Your task to perform on an android device: turn on the 12-hour format for clock Image 0: 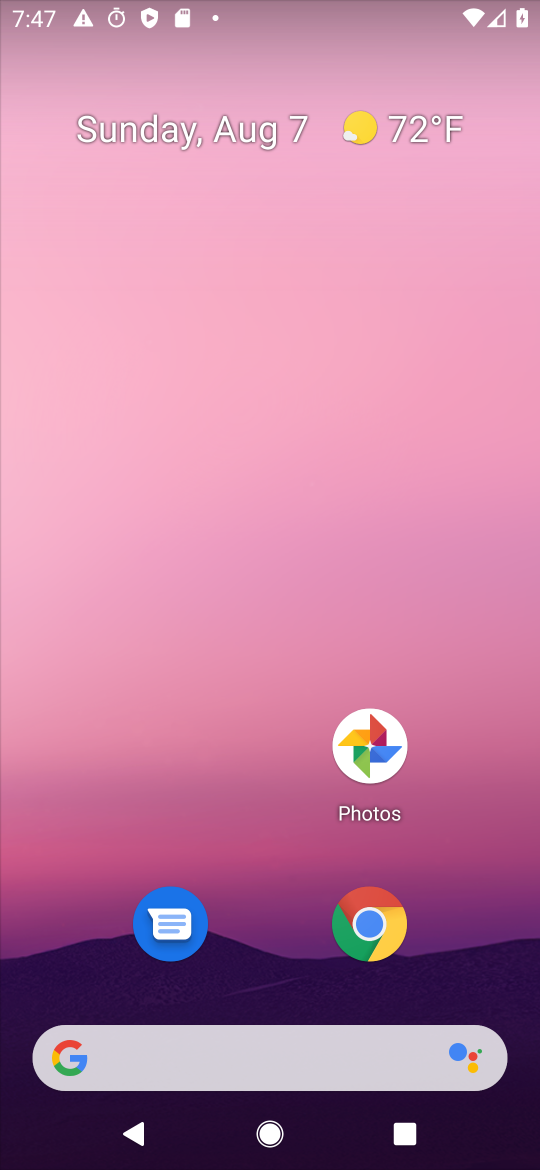
Step 0: drag from (472, 1088) to (345, 196)
Your task to perform on an android device: turn on the 12-hour format for clock Image 1: 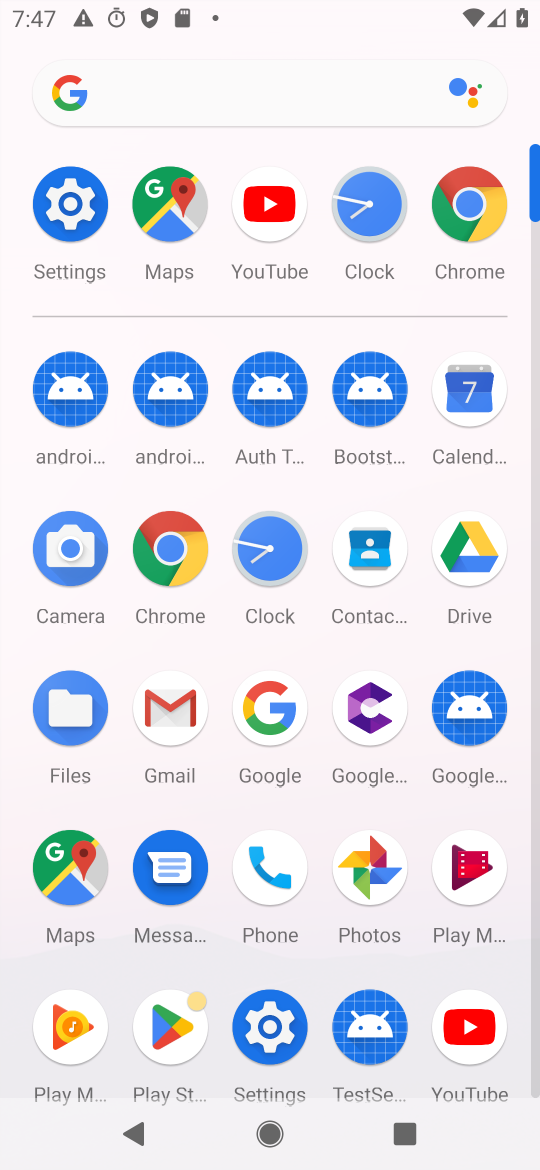
Step 1: click (375, 204)
Your task to perform on an android device: turn on the 12-hour format for clock Image 2: 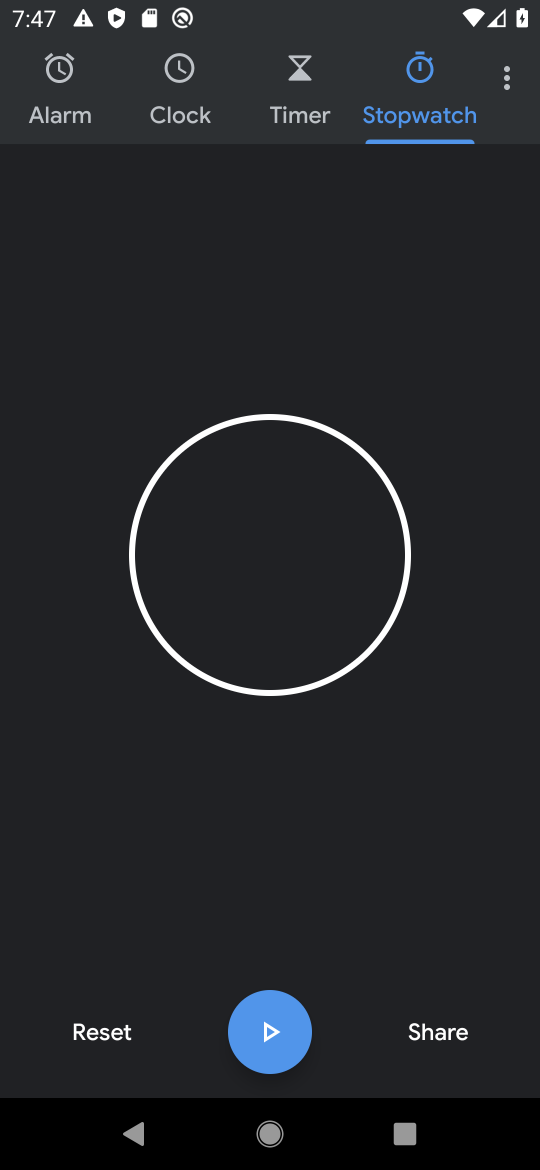
Step 2: click (510, 91)
Your task to perform on an android device: turn on the 12-hour format for clock Image 3: 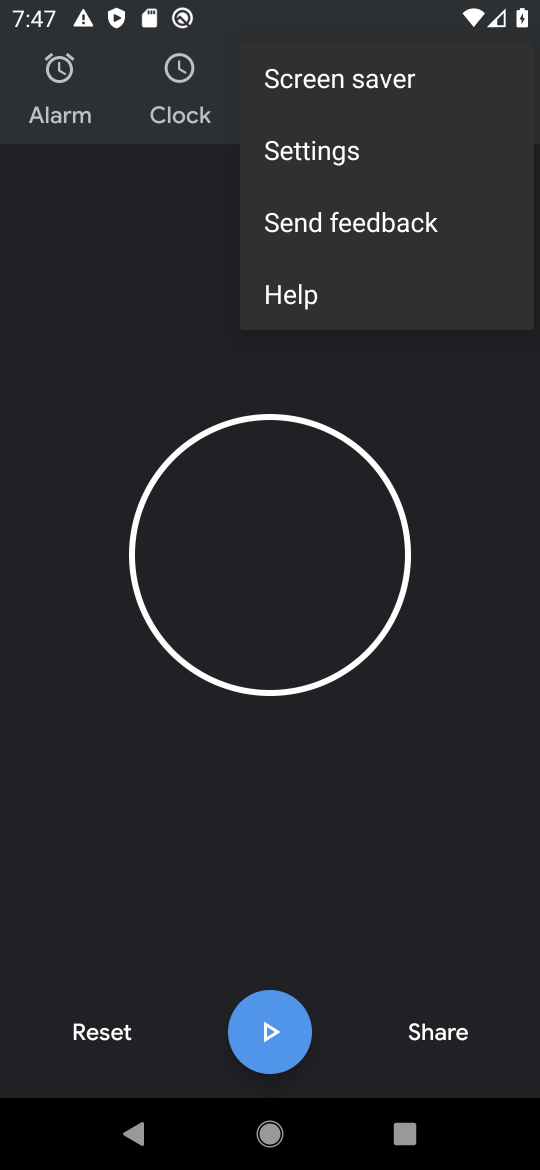
Step 3: click (369, 153)
Your task to perform on an android device: turn on the 12-hour format for clock Image 4: 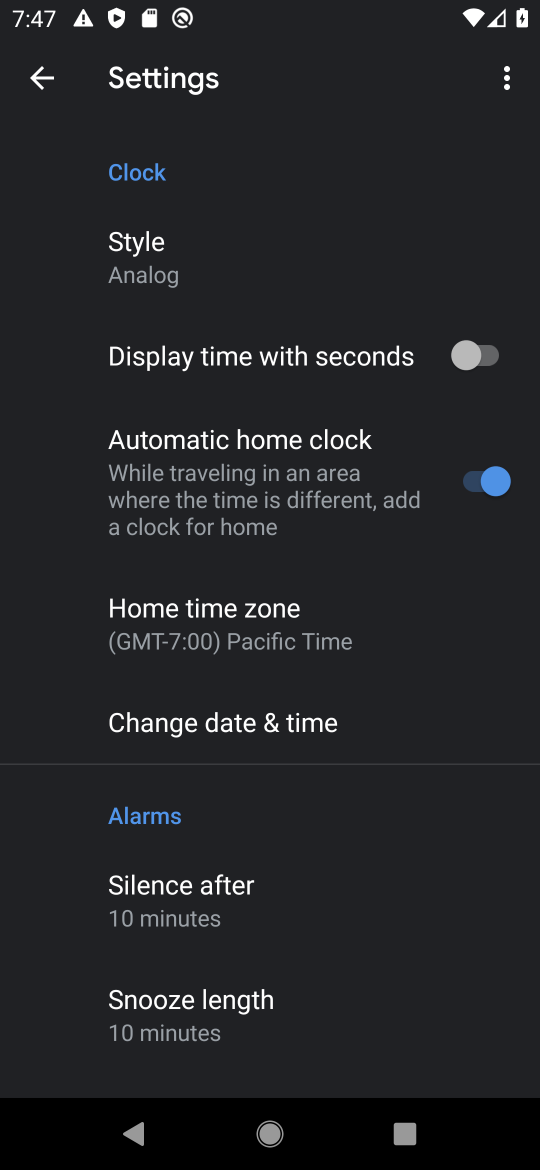
Step 4: click (268, 731)
Your task to perform on an android device: turn on the 12-hour format for clock Image 5: 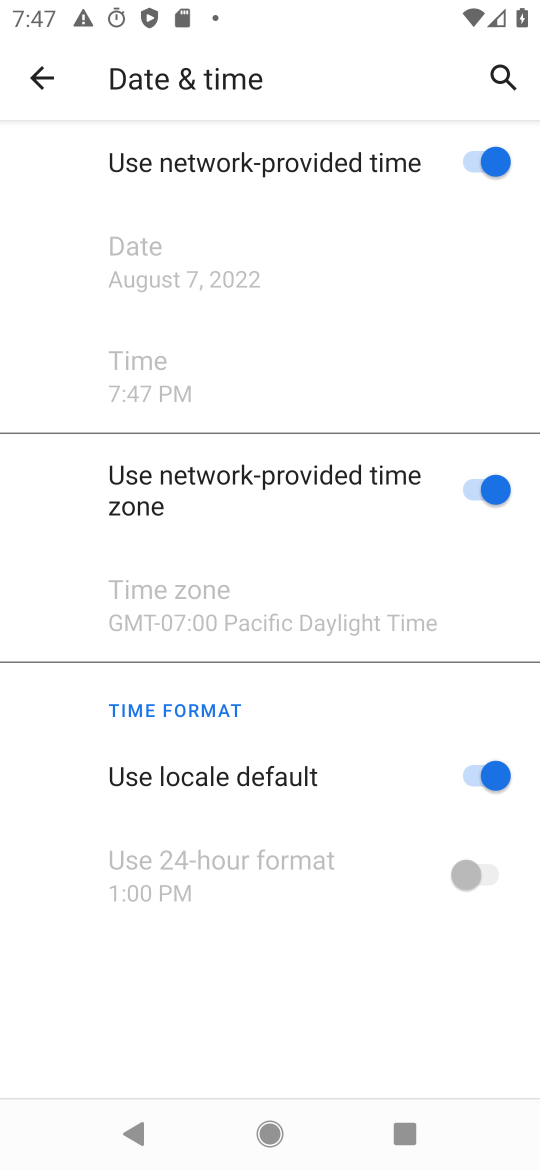
Step 5: click (464, 774)
Your task to perform on an android device: turn on the 12-hour format for clock Image 6: 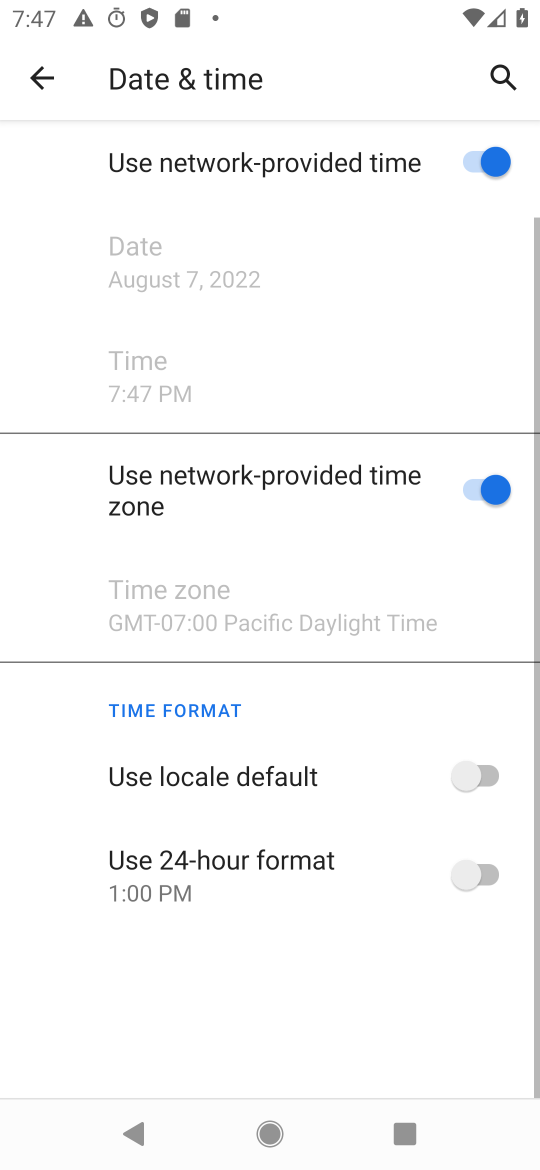
Step 6: click (476, 860)
Your task to perform on an android device: turn on the 12-hour format for clock Image 7: 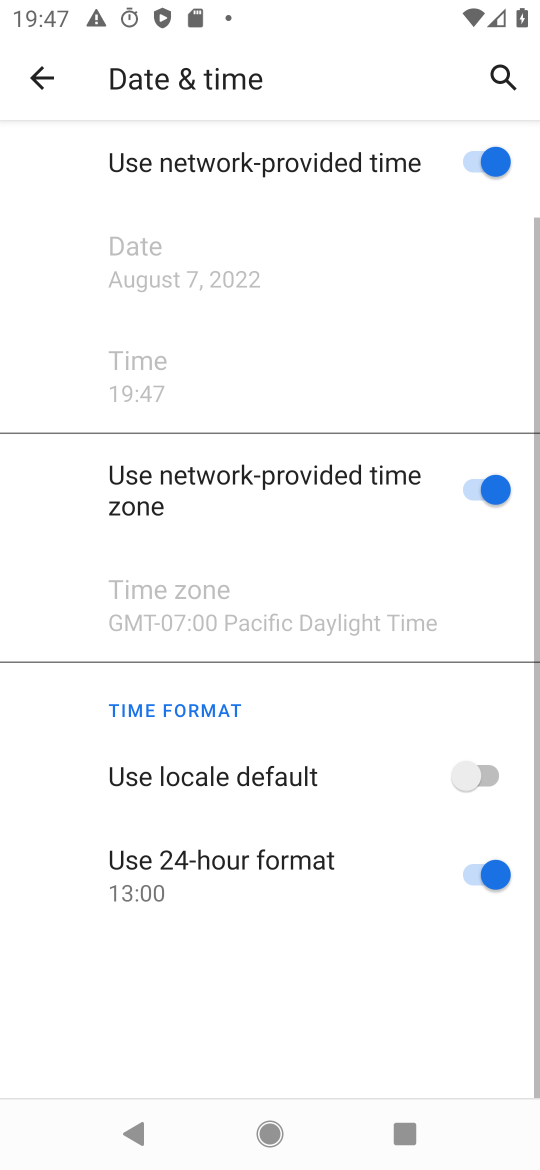
Step 7: click (487, 872)
Your task to perform on an android device: turn on the 12-hour format for clock Image 8: 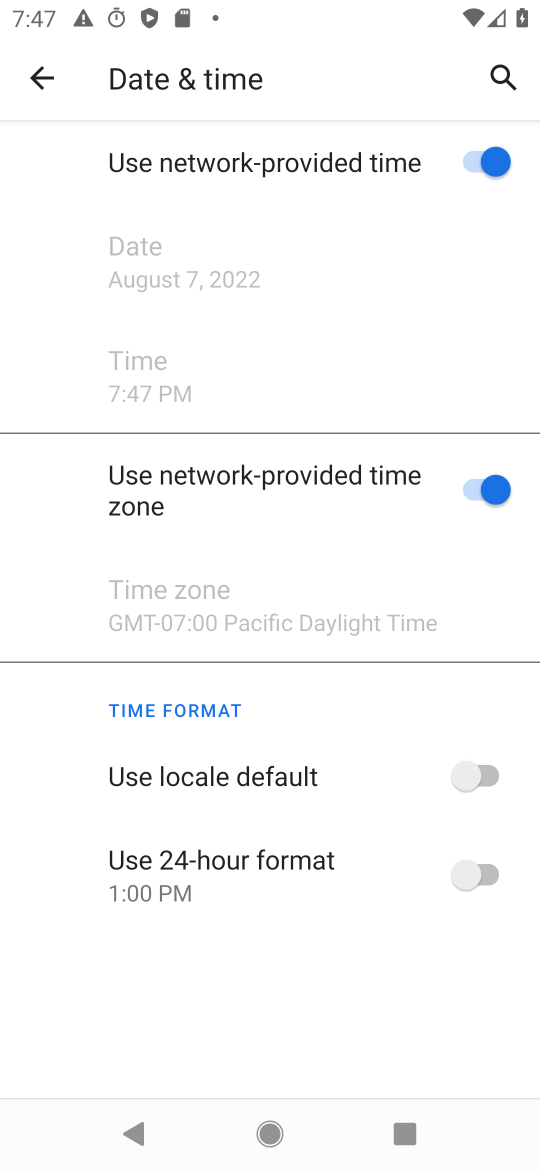
Step 8: task complete